Your task to perform on an android device: Open settings on Google Maps Image 0: 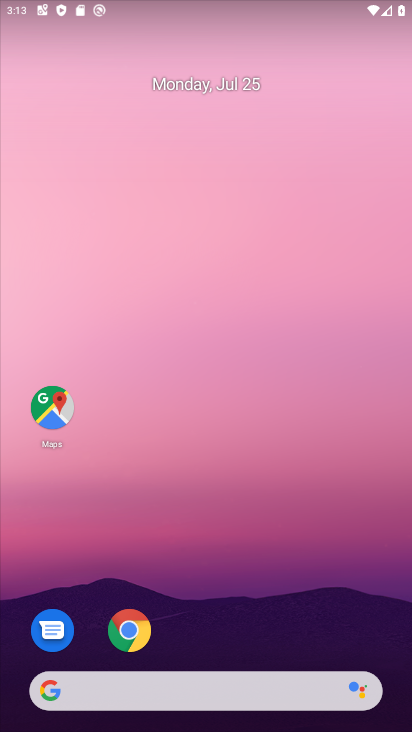
Step 0: click (57, 405)
Your task to perform on an android device: Open settings on Google Maps Image 1: 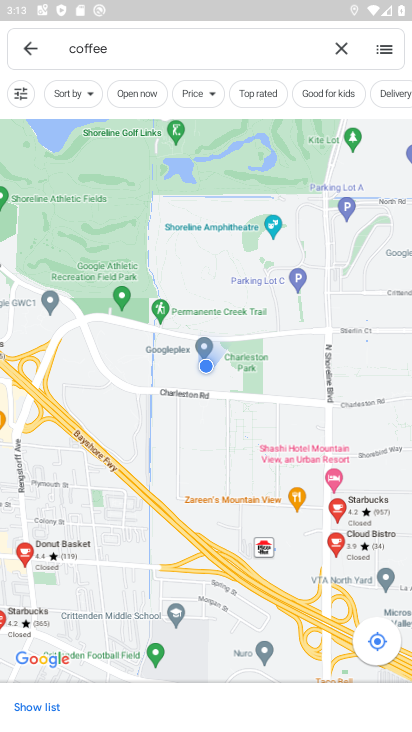
Step 1: click (27, 54)
Your task to perform on an android device: Open settings on Google Maps Image 2: 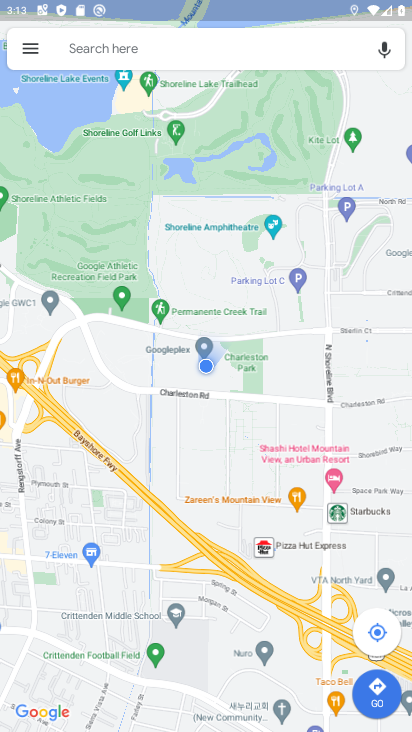
Step 2: click (35, 55)
Your task to perform on an android device: Open settings on Google Maps Image 3: 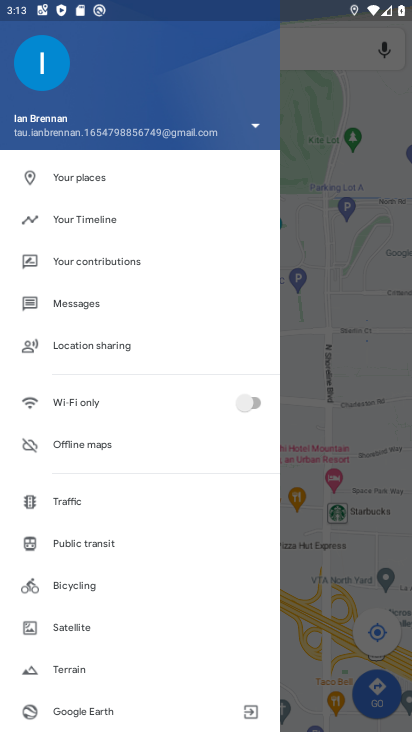
Step 3: drag from (124, 655) to (115, 296)
Your task to perform on an android device: Open settings on Google Maps Image 4: 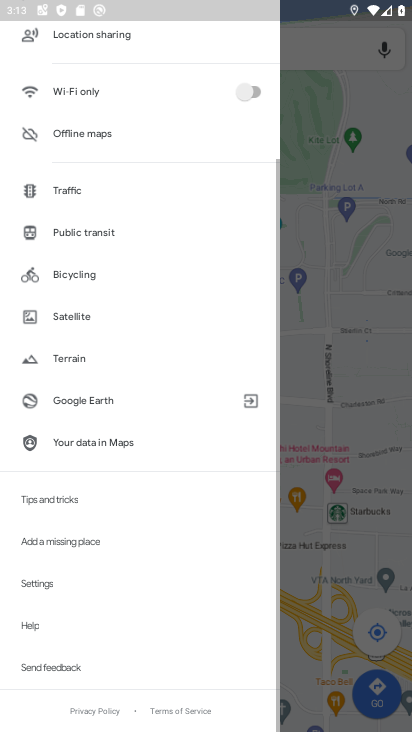
Step 4: click (67, 581)
Your task to perform on an android device: Open settings on Google Maps Image 5: 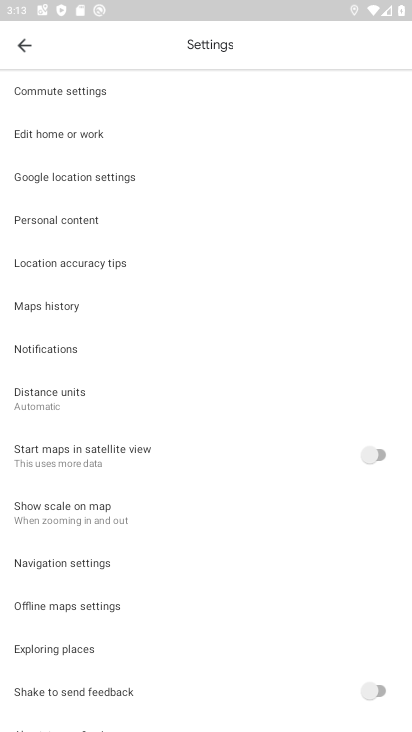
Step 5: task complete